Your task to perform on an android device: turn on the 24-hour format for clock Image 0: 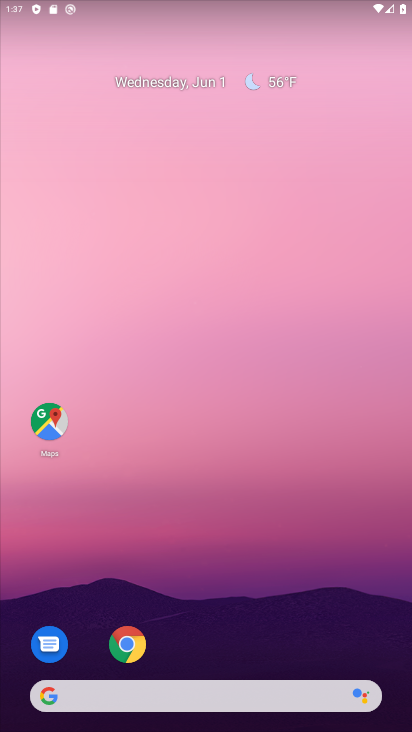
Step 0: drag from (162, 632) to (140, 360)
Your task to perform on an android device: turn on the 24-hour format for clock Image 1: 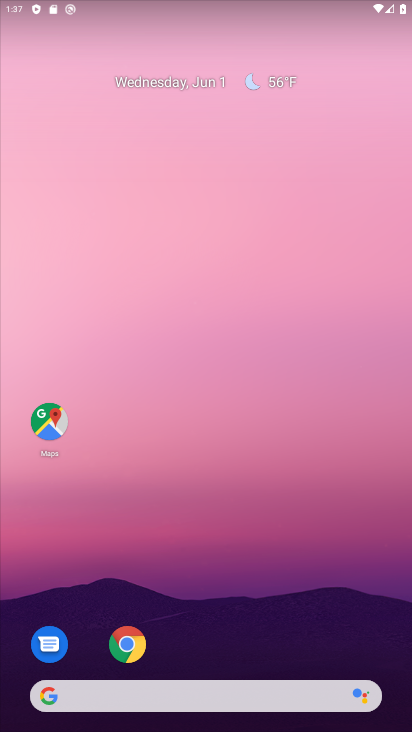
Step 1: drag from (244, 670) to (258, 154)
Your task to perform on an android device: turn on the 24-hour format for clock Image 2: 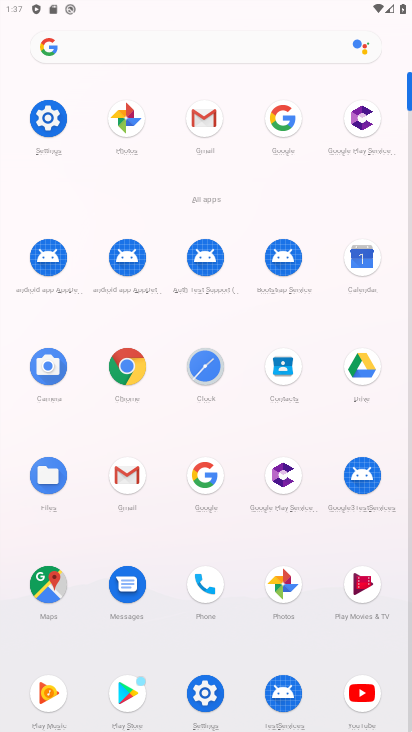
Step 2: click (207, 365)
Your task to perform on an android device: turn on the 24-hour format for clock Image 3: 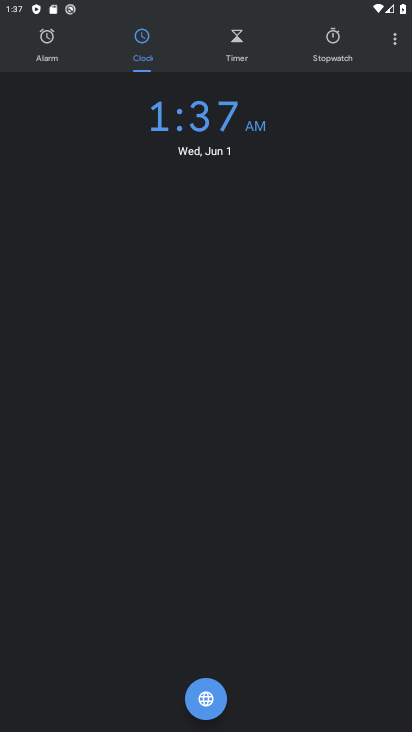
Step 3: click (393, 38)
Your task to perform on an android device: turn on the 24-hour format for clock Image 4: 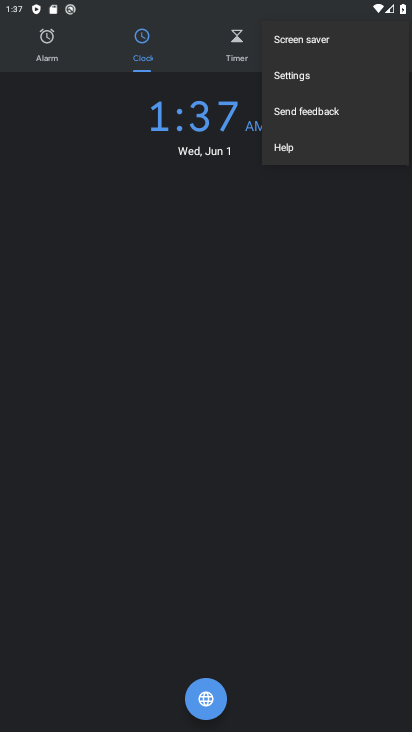
Step 4: click (306, 74)
Your task to perform on an android device: turn on the 24-hour format for clock Image 5: 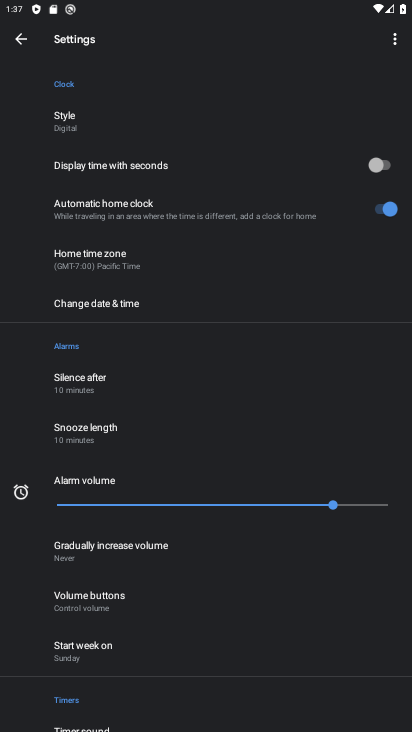
Step 5: click (110, 307)
Your task to perform on an android device: turn on the 24-hour format for clock Image 6: 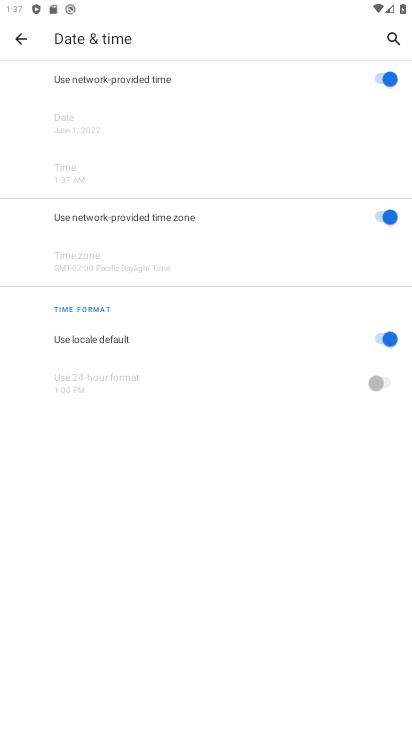
Step 6: click (380, 340)
Your task to perform on an android device: turn on the 24-hour format for clock Image 7: 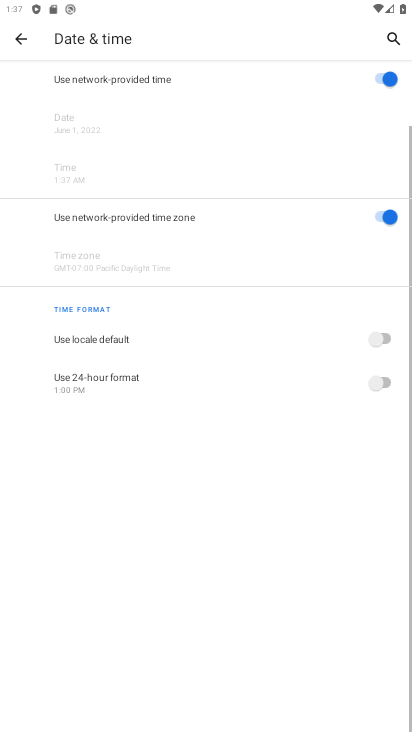
Step 7: click (383, 385)
Your task to perform on an android device: turn on the 24-hour format for clock Image 8: 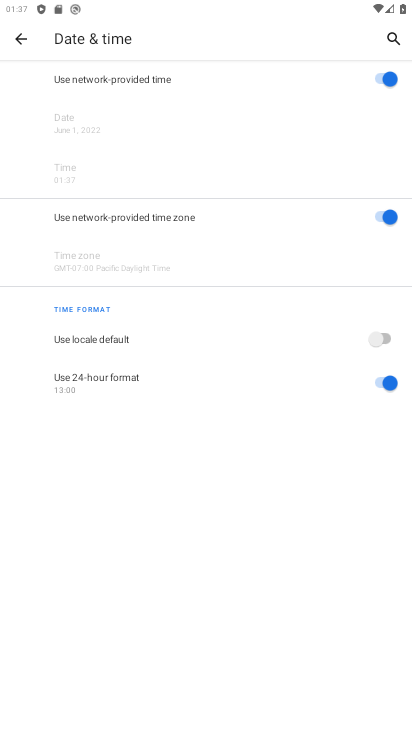
Step 8: task complete